Your task to perform on an android device: Open Google Chrome and open the bookmarks view Image 0: 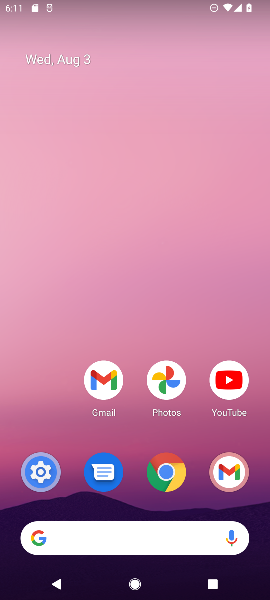
Step 0: drag from (207, 483) to (103, 0)
Your task to perform on an android device: Open Google Chrome and open the bookmarks view Image 1: 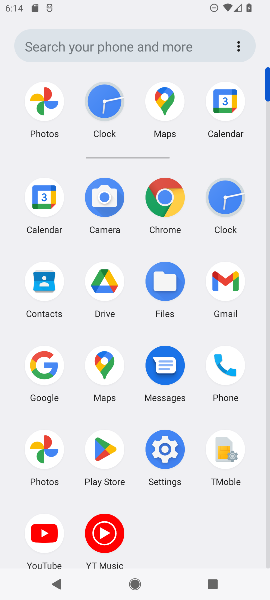
Step 1: click (171, 195)
Your task to perform on an android device: Open Google Chrome and open the bookmarks view Image 2: 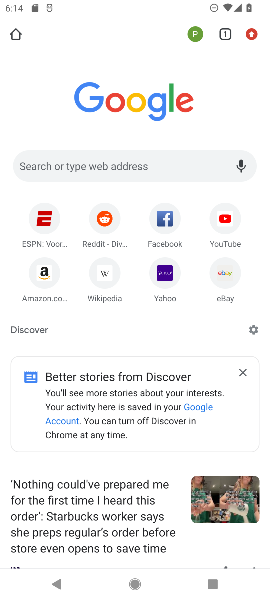
Step 2: click (254, 37)
Your task to perform on an android device: Open Google Chrome and open the bookmarks view Image 3: 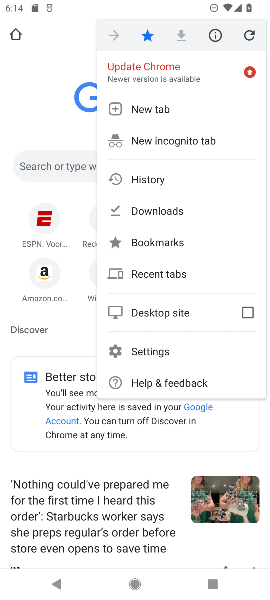
Step 3: click (148, 250)
Your task to perform on an android device: Open Google Chrome and open the bookmarks view Image 4: 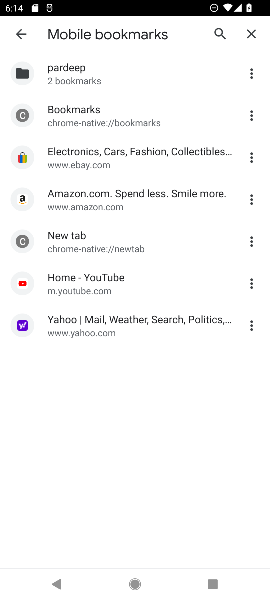
Step 4: task complete